Your task to perform on an android device: Add bose quietcomfort 35 to the cart on newegg.com Image 0: 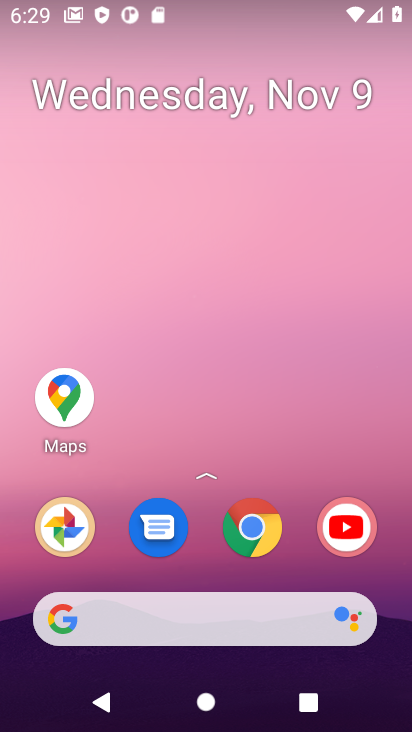
Step 0: click (254, 530)
Your task to perform on an android device: Add bose quietcomfort 35 to the cart on newegg.com Image 1: 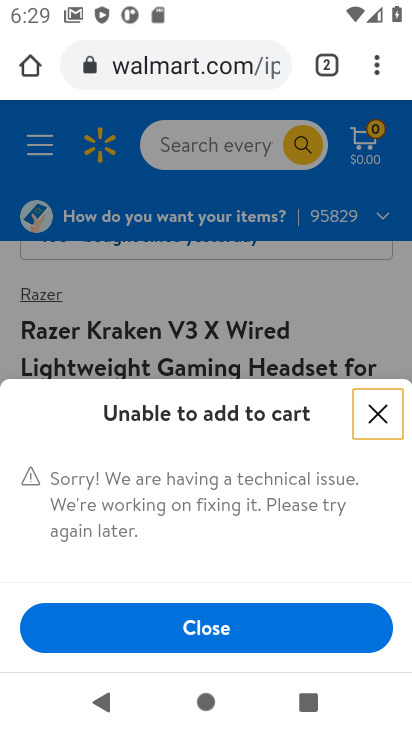
Step 1: click (179, 75)
Your task to perform on an android device: Add bose quietcomfort 35 to the cart on newegg.com Image 2: 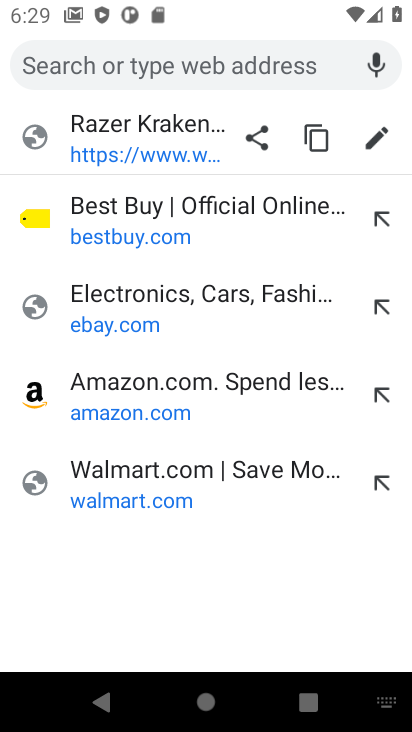
Step 2: type "newegg.com"
Your task to perform on an android device: Add bose quietcomfort 35 to the cart on newegg.com Image 3: 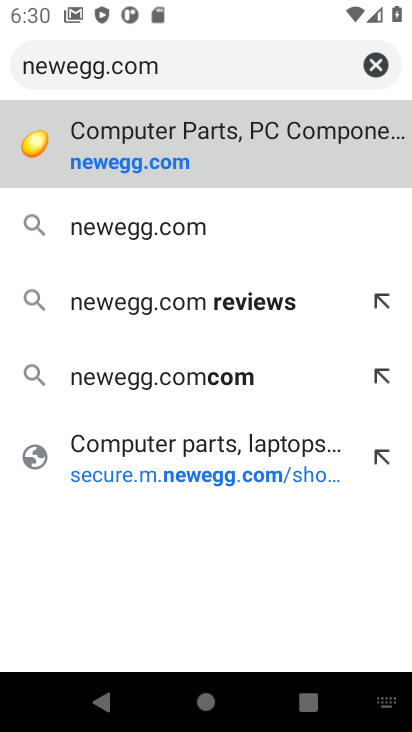
Step 3: click (115, 154)
Your task to perform on an android device: Add bose quietcomfort 35 to the cart on newegg.com Image 4: 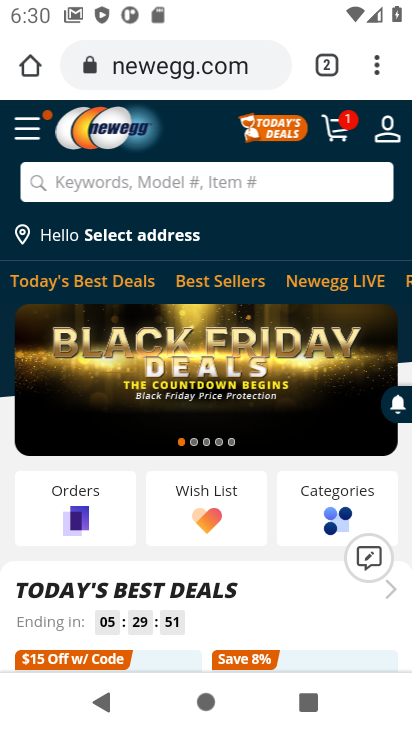
Step 4: click (139, 176)
Your task to perform on an android device: Add bose quietcomfort 35 to the cart on newegg.com Image 5: 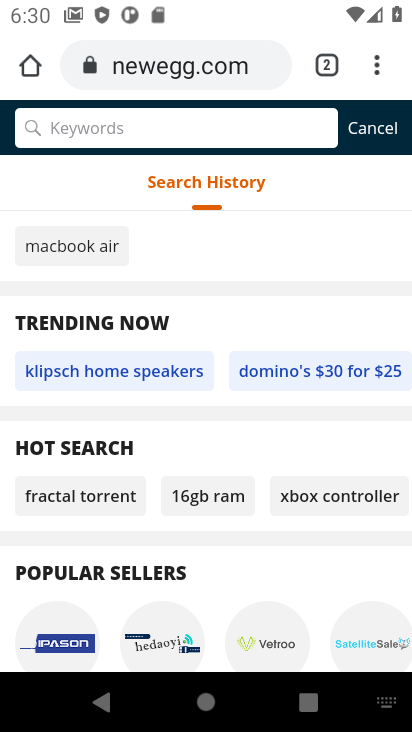
Step 5: type "bose quietcomfort 35"
Your task to perform on an android device: Add bose quietcomfort 35 to the cart on newegg.com Image 6: 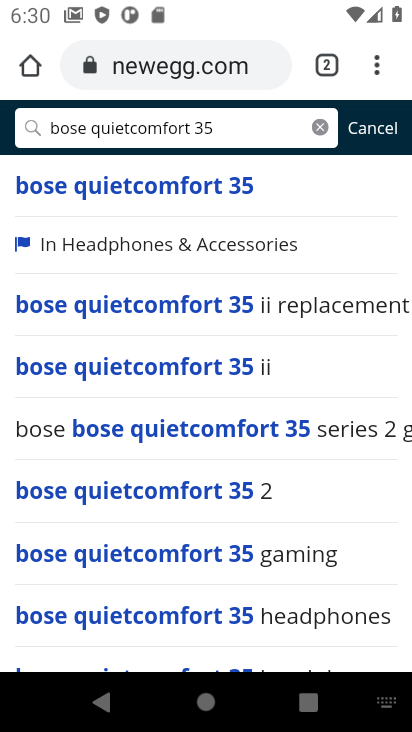
Step 6: click (209, 185)
Your task to perform on an android device: Add bose quietcomfort 35 to the cart on newegg.com Image 7: 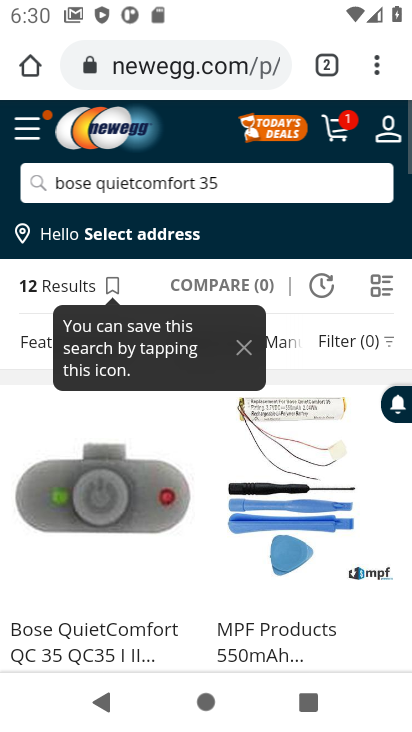
Step 7: drag from (203, 581) to (216, 339)
Your task to perform on an android device: Add bose quietcomfort 35 to the cart on newegg.com Image 8: 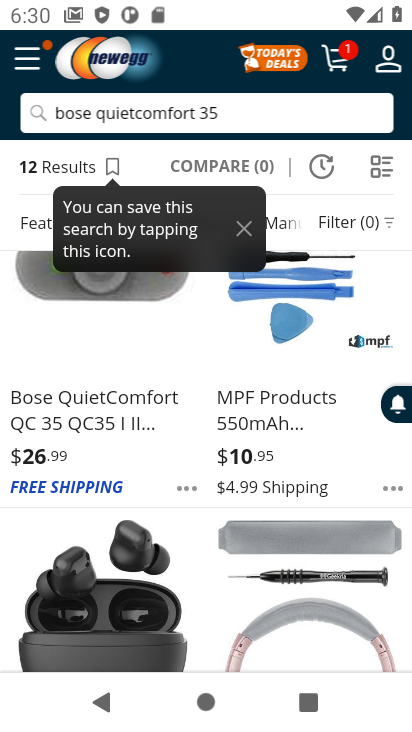
Step 8: click (89, 390)
Your task to perform on an android device: Add bose quietcomfort 35 to the cart on newegg.com Image 9: 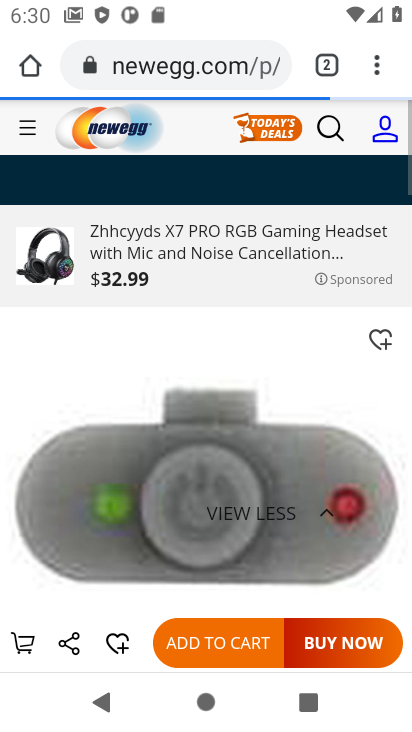
Step 9: click (217, 644)
Your task to perform on an android device: Add bose quietcomfort 35 to the cart on newegg.com Image 10: 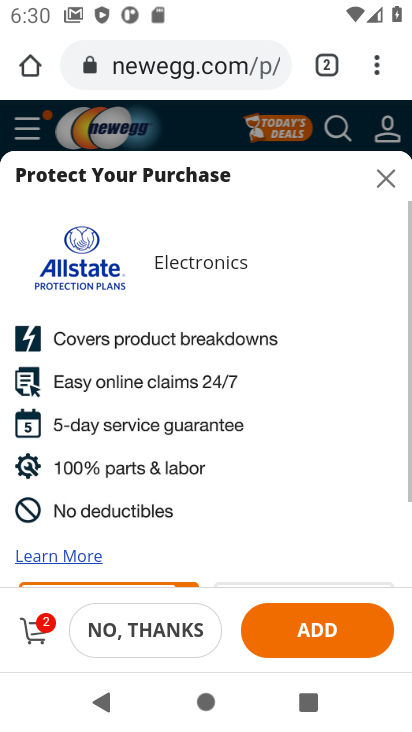
Step 10: task complete